Your task to perform on an android device: turn on the 24-hour format for clock Image 0: 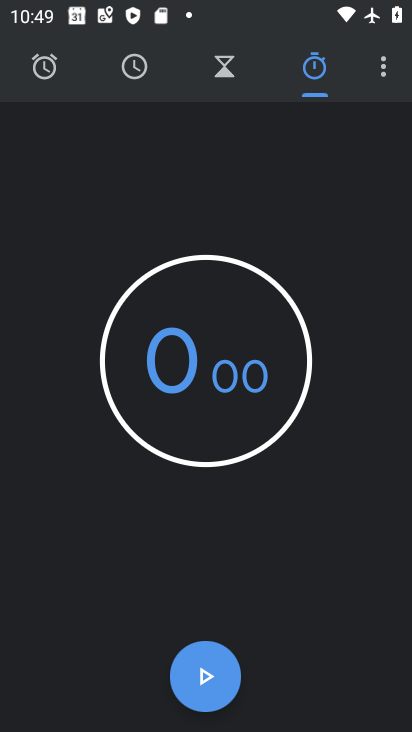
Step 0: press home button
Your task to perform on an android device: turn on the 24-hour format for clock Image 1: 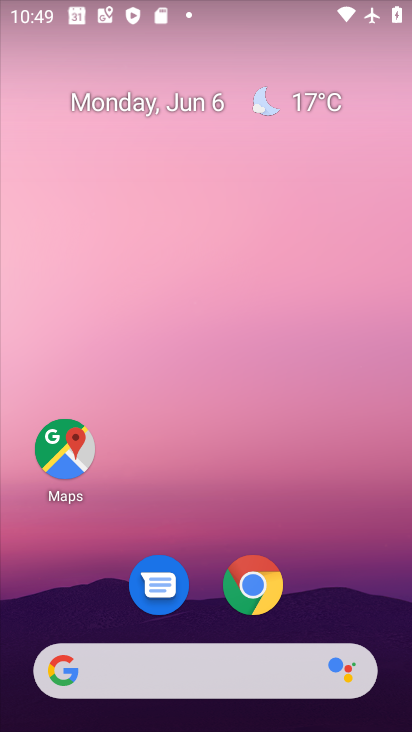
Step 1: drag from (216, 515) to (280, 8)
Your task to perform on an android device: turn on the 24-hour format for clock Image 2: 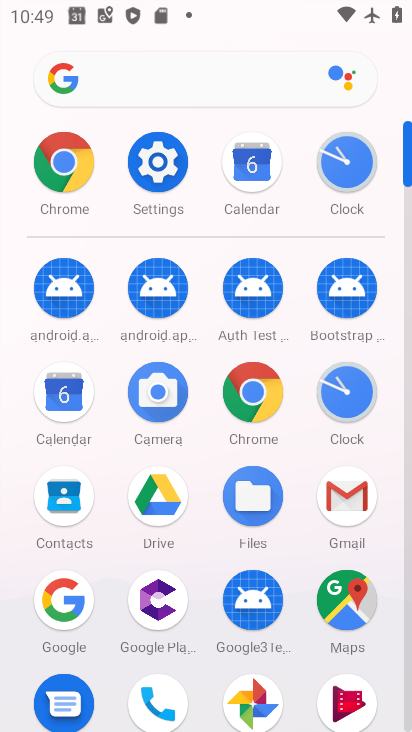
Step 2: click (356, 163)
Your task to perform on an android device: turn on the 24-hour format for clock Image 3: 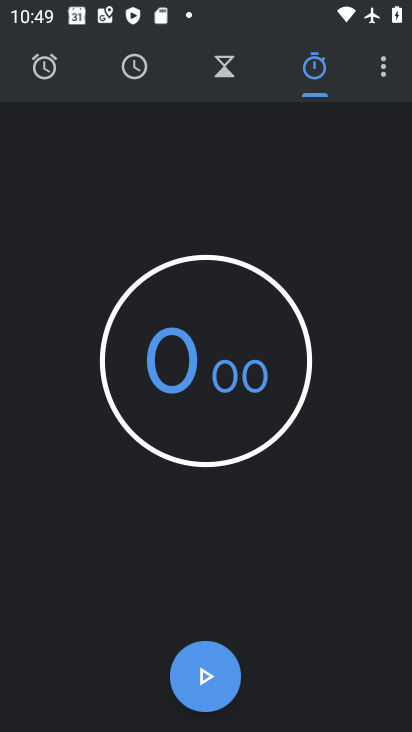
Step 3: click (379, 66)
Your task to perform on an android device: turn on the 24-hour format for clock Image 4: 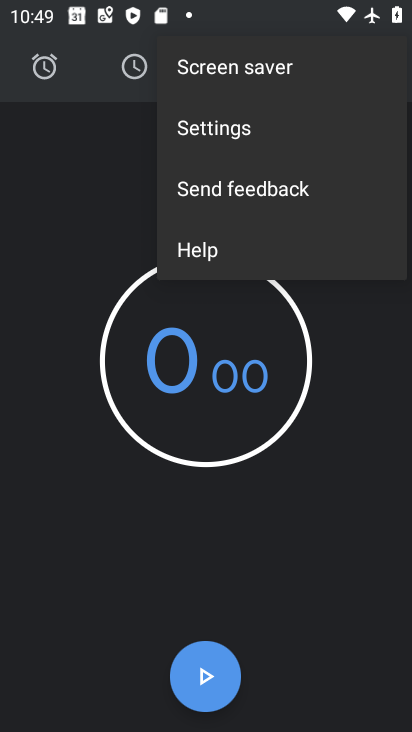
Step 4: click (303, 124)
Your task to perform on an android device: turn on the 24-hour format for clock Image 5: 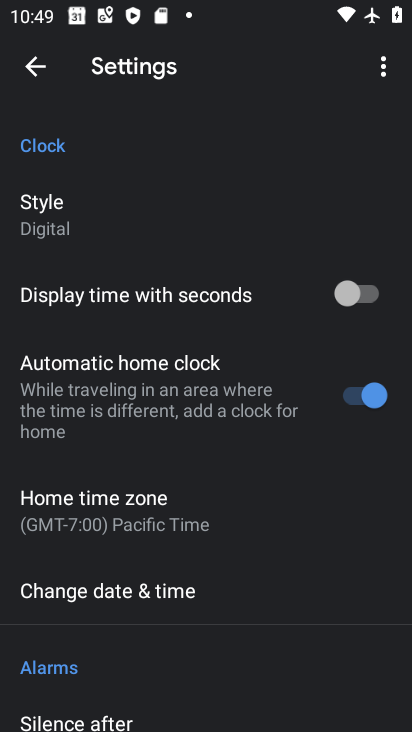
Step 5: click (204, 584)
Your task to perform on an android device: turn on the 24-hour format for clock Image 6: 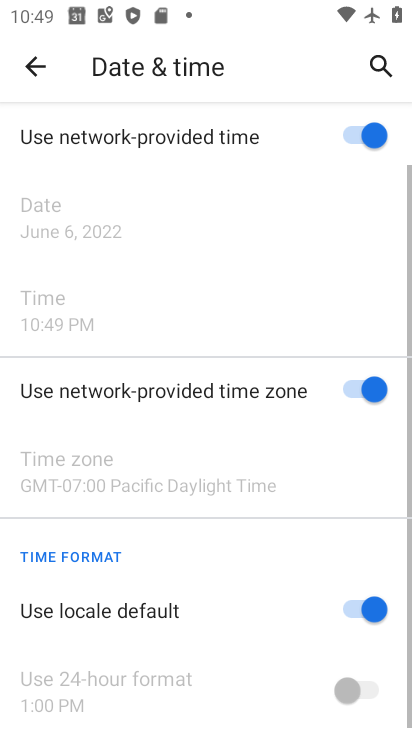
Step 6: drag from (253, 378) to (260, 211)
Your task to perform on an android device: turn on the 24-hour format for clock Image 7: 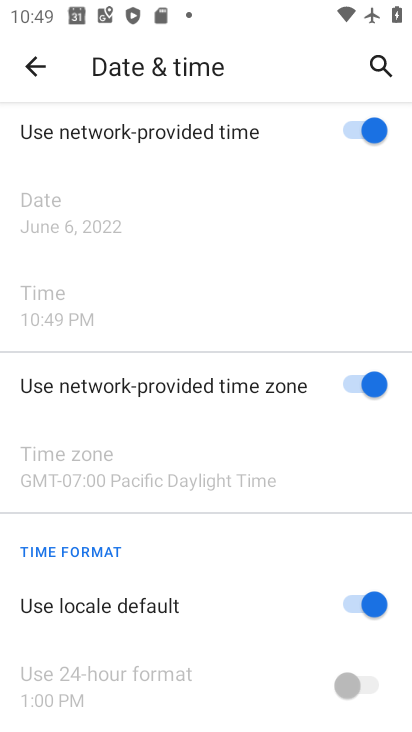
Step 7: click (362, 599)
Your task to perform on an android device: turn on the 24-hour format for clock Image 8: 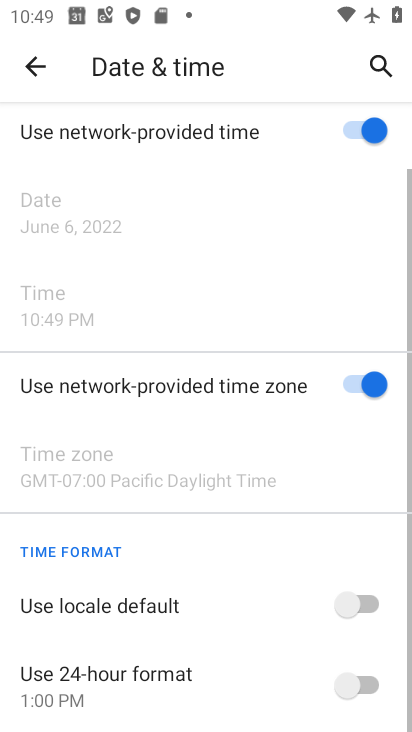
Step 8: click (367, 679)
Your task to perform on an android device: turn on the 24-hour format for clock Image 9: 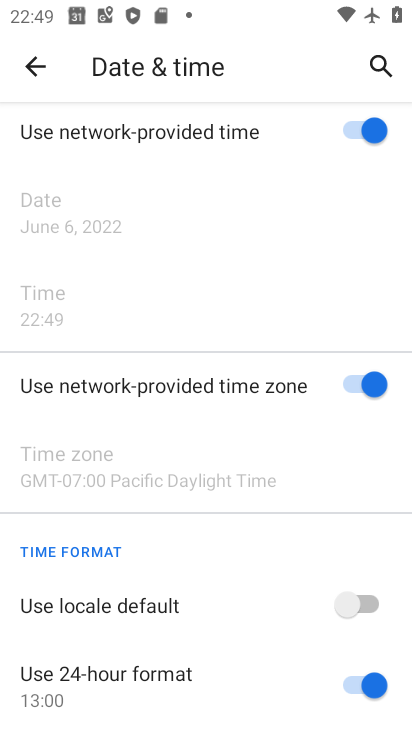
Step 9: task complete